Your task to perform on an android device: Open display settings Image 0: 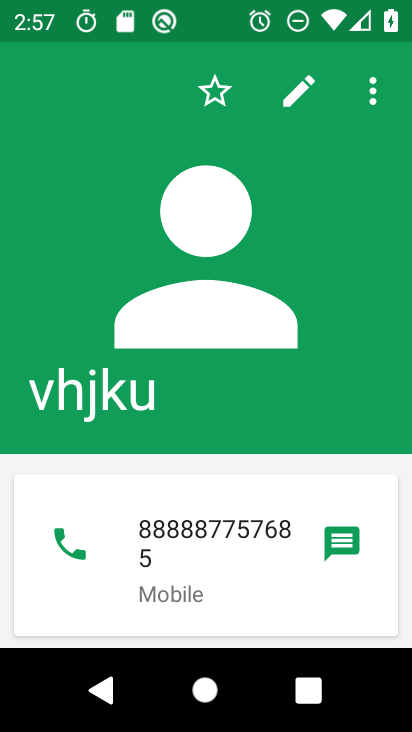
Step 0: press home button
Your task to perform on an android device: Open display settings Image 1: 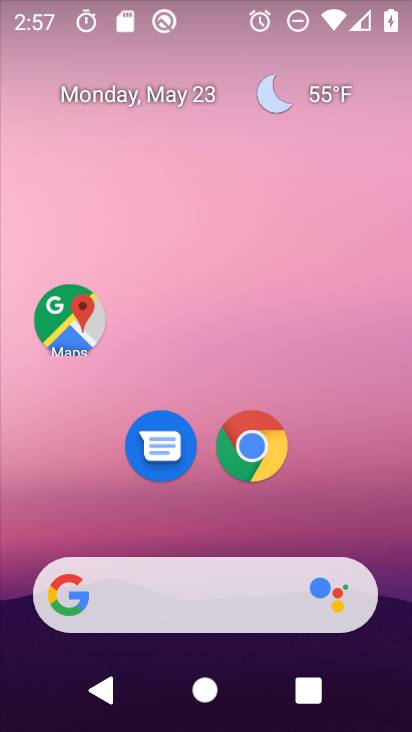
Step 1: drag from (201, 550) to (171, 162)
Your task to perform on an android device: Open display settings Image 2: 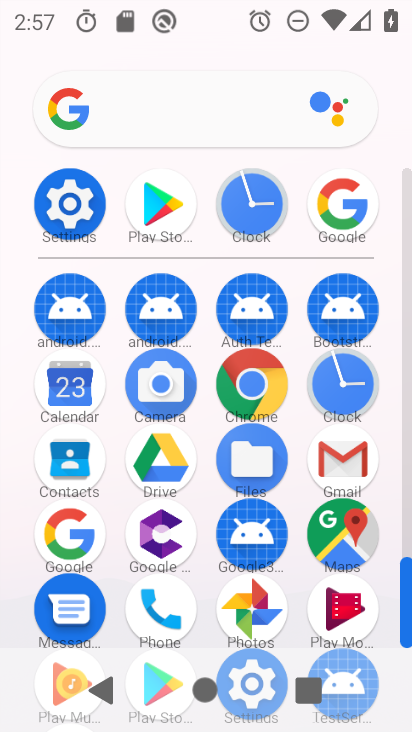
Step 2: click (66, 208)
Your task to perform on an android device: Open display settings Image 3: 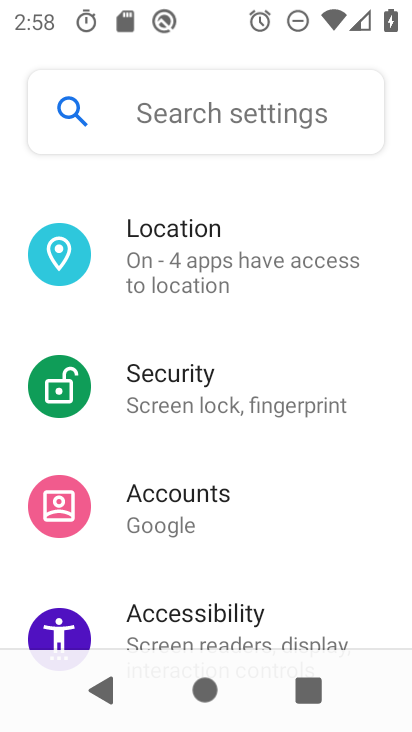
Step 3: drag from (201, 266) to (210, 498)
Your task to perform on an android device: Open display settings Image 4: 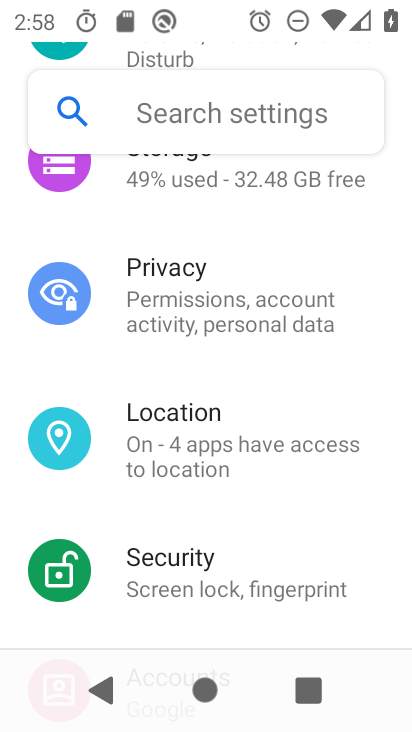
Step 4: drag from (195, 239) to (219, 506)
Your task to perform on an android device: Open display settings Image 5: 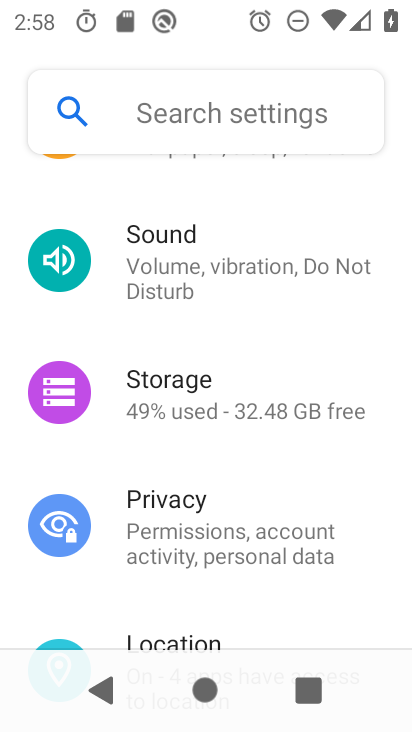
Step 5: drag from (200, 262) to (225, 503)
Your task to perform on an android device: Open display settings Image 6: 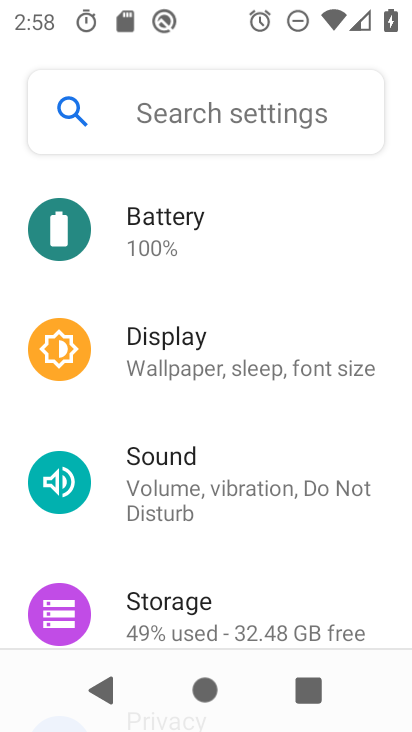
Step 6: click (171, 346)
Your task to perform on an android device: Open display settings Image 7: 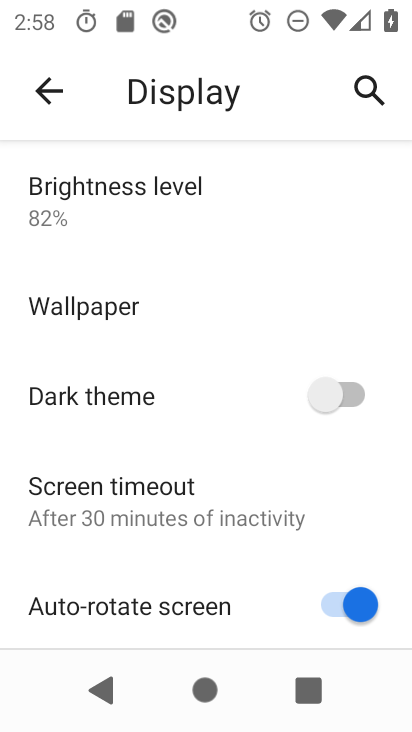
Step 7: task complete